Your task to perform on an android device: Open calendar and show me the second week of next month Image 0: 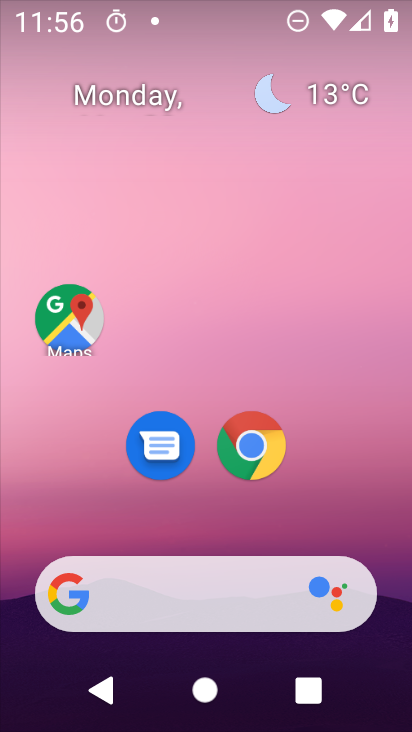
Step 0: click (220, 149)
Your task to perform on an android device: Open calendar and show me the second week of next month Image 1: 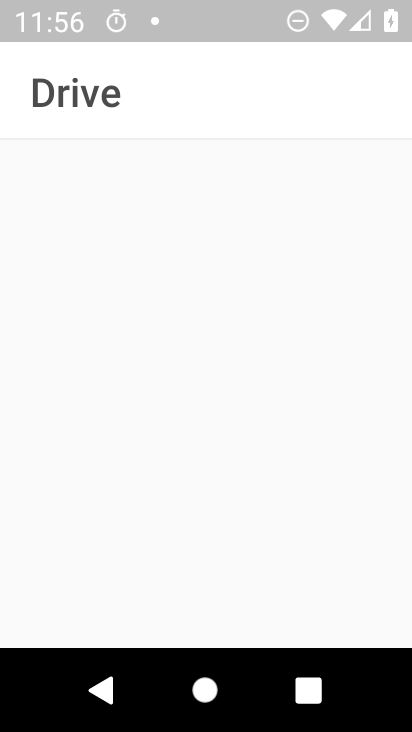
Step 1: press back button
Your task to perform on an android device: Open calendar and show me the second week of next month Image 2: 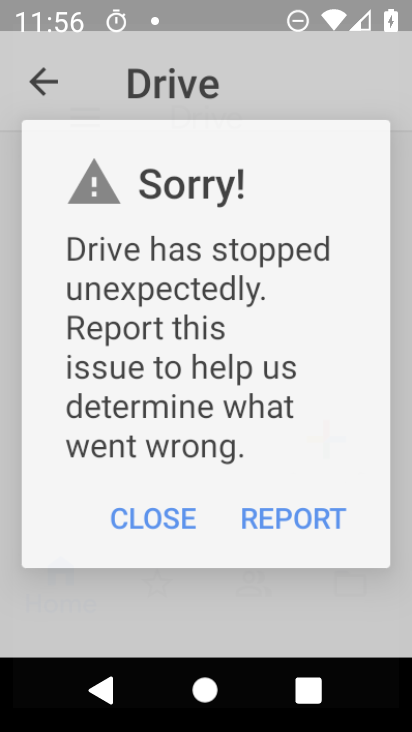
Step 2: press back button
Your task to perform on an android device: Open calendar and show me the second week of next month Image 3: 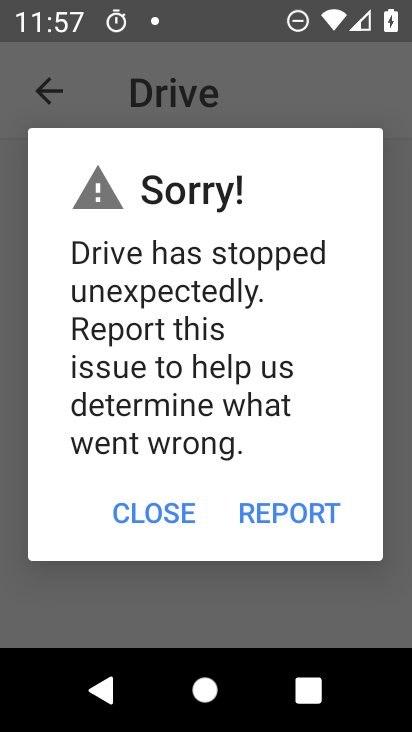
Step 3: press back button
Your task to perform on an android device: Open calendar and show me the second week of next month Image 4: 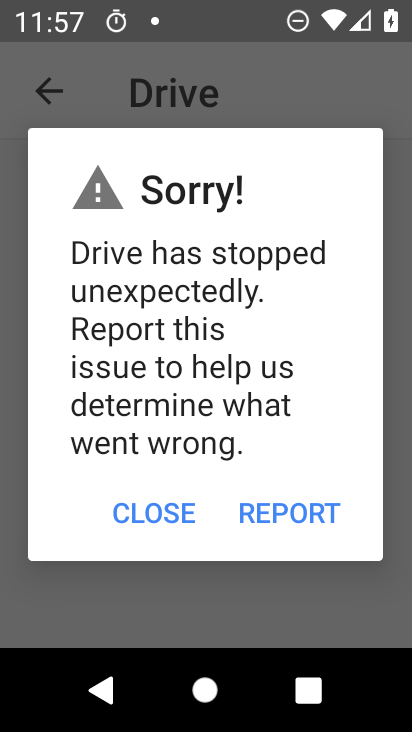
Step 4: press home button
Your task to perform on an android device: Open calendar and show me the second week of next month Image 5: 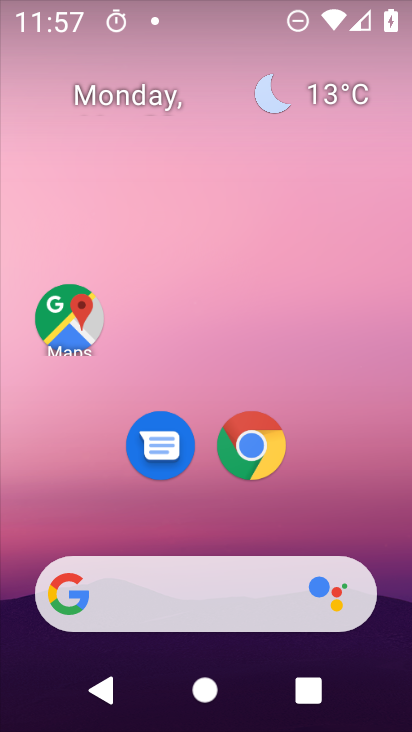
Step 5: drag from (202, 545) to (217, 134)
Your task to perform on an android device: Open calendar and show me the second week of next month Image 6: 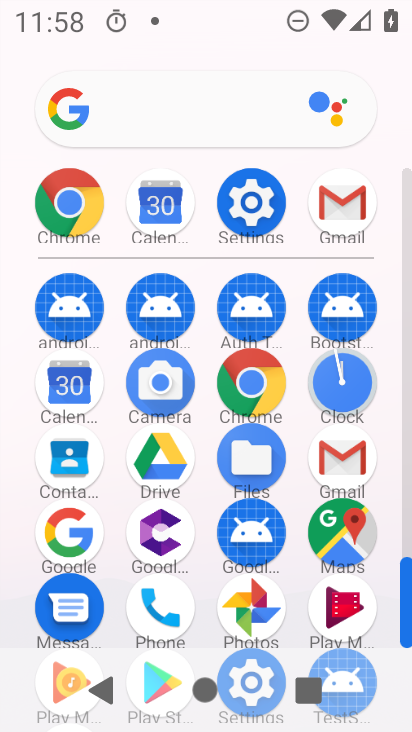
Step 6: click (78, 384)
Your task to perform on an android device: Open calendar and show me the second week of next month Image 7: 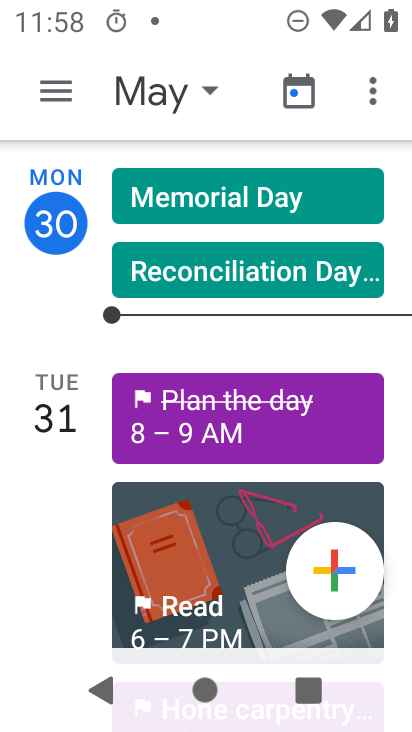
Step 7: click (183, 91)
Your task to perform on an android device: Open calendar and show me the second week of next month Image 8: 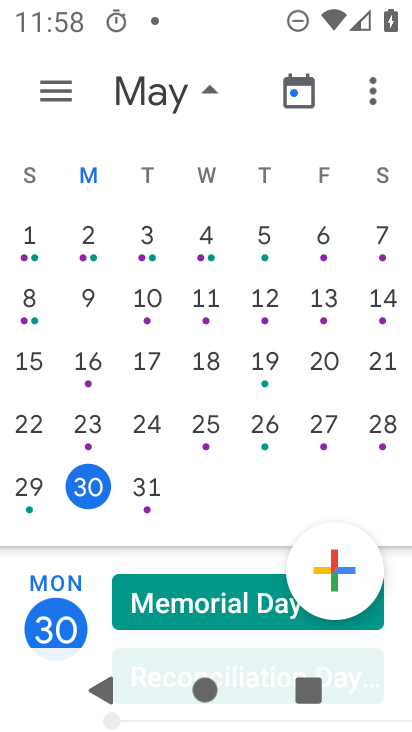
Step 8: drag from (380, 340) to (2, 290)
Your task to perform on an android device: Open calendar and show me the second week of next month Image 9: 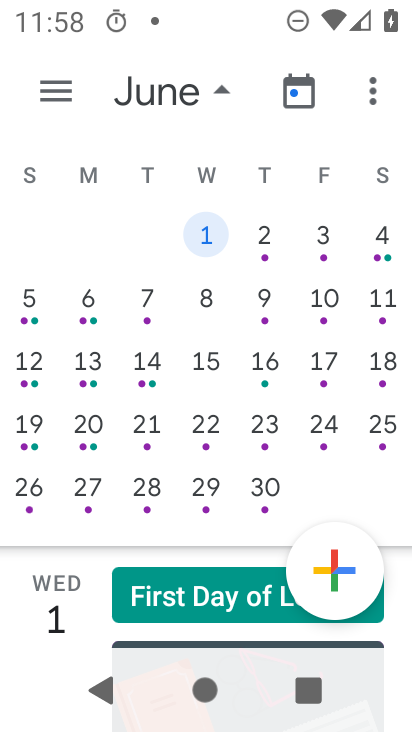
Step 9: click (91, 298)
Your task to perform on an android device: Open calendar and show me the second week of next month Image 10: 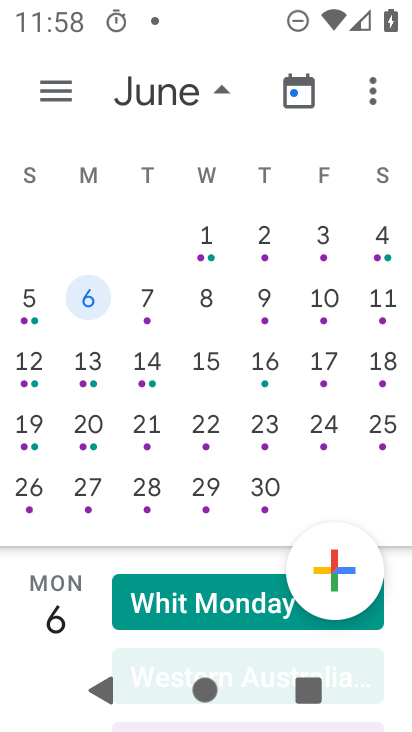
Step 10: task complete